Your task to perform on an android device: choose inbox layout in the gmail app Image 0: 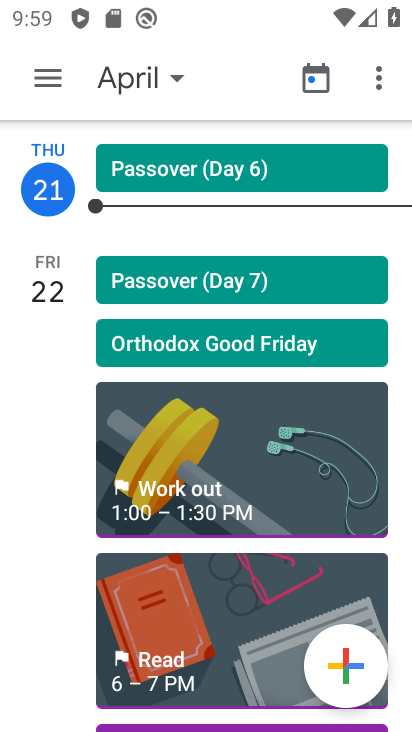
Step 0: drag from (264, 17) to (212, 568)
Your task to perform on an android device: choose inbox layout in the gmail app Image 1: 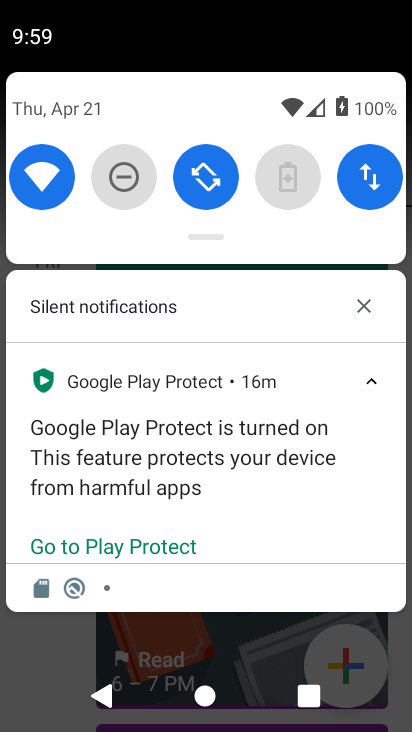
Step 1: press back button
Your task to perform on an android device: choose inbox layout in the gmail app Image 2: 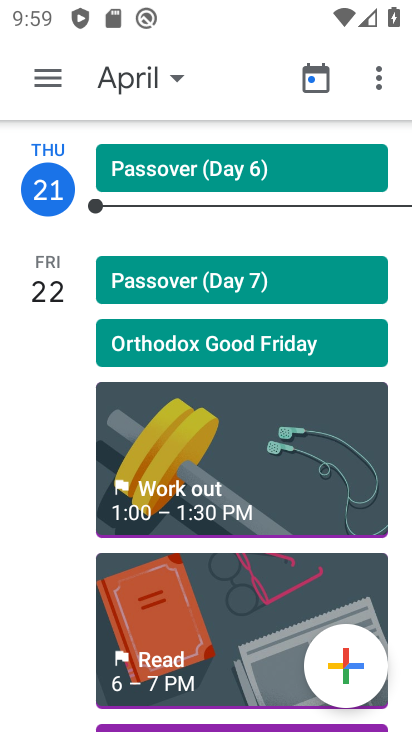
Step 2: press back button
Your task to perform on an android device: choose inbox layout in the gmail app Image 3: 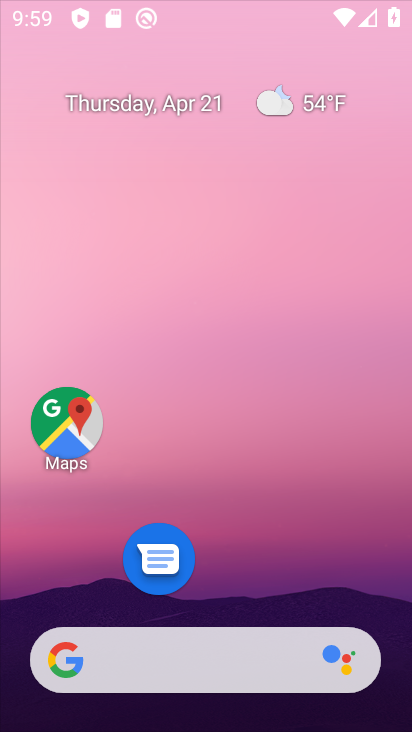
Step 3: press back button
Your task to perform on an android device: choose inbox layout in the gmail app Image 4: 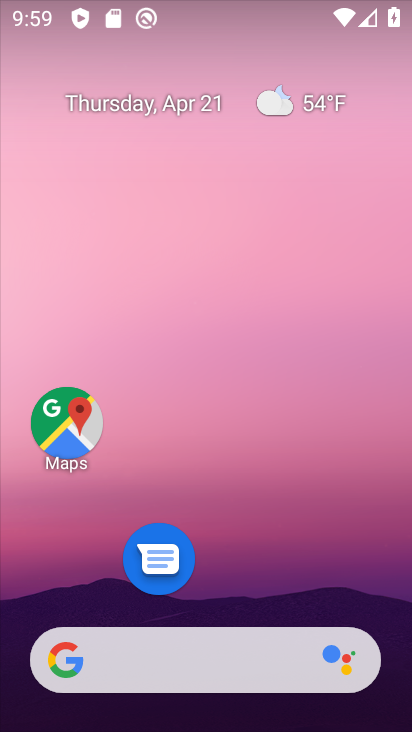
Step 4: drag from (230, 601) to (358, 59)
Your task to perform on an android device: choose inbox layout in the gmail app Image 5: 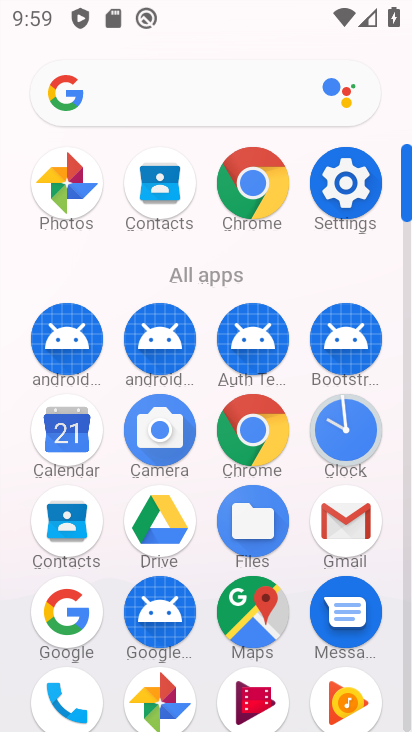
Step 5: click (352, 525)
Your task to perform on an android device: choose inbox layout in the gmail app Image 6: 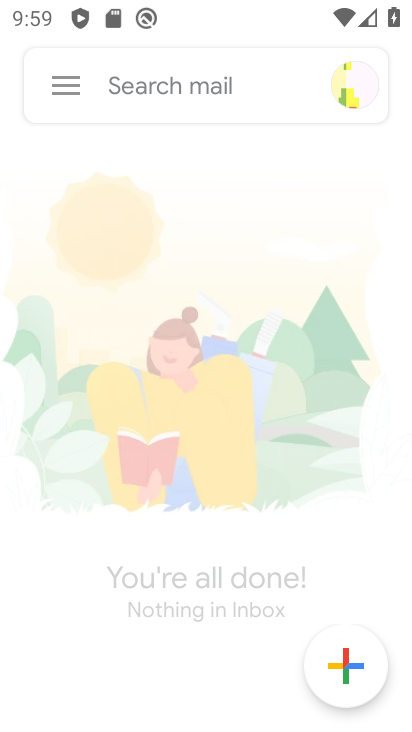
Step 6: click (74, 84)
Your task to perform on an android device: choose inbox layout in the gmail app Image 7: 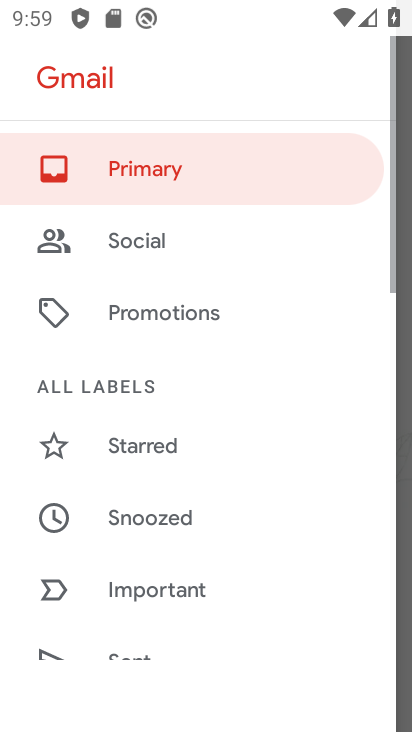
Step 7: drag from (164, 508) to (348, 1)
Your task to perform on an android device: choose inbox layout in the gmail app Image 8: 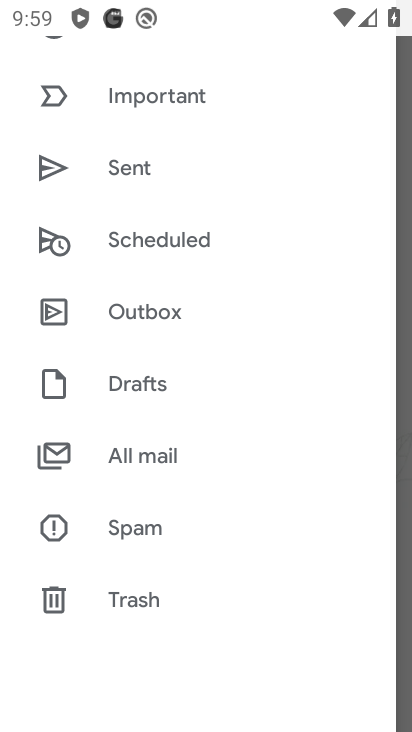
Step 8: drag from (202, 567) to (323, 84)
Your task to perform on an android device: choose inbox layout in the gmail app Image 9: 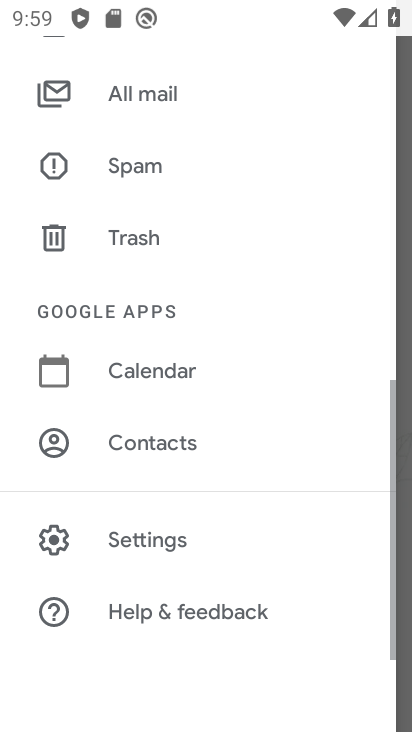
Step 9: click (166, 547)
Your task to perform on an android device: choose inbox layout in the gmail app Image 10: 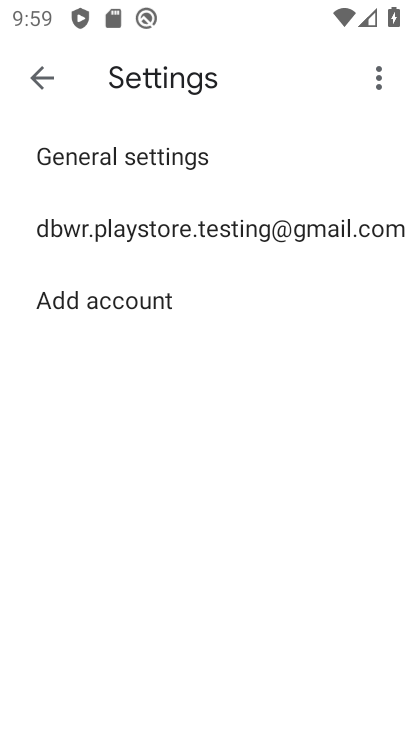
Step 10: click (150, 236)
Your task to perform on an android device: choose inbox layout in the gmail app Image 11: 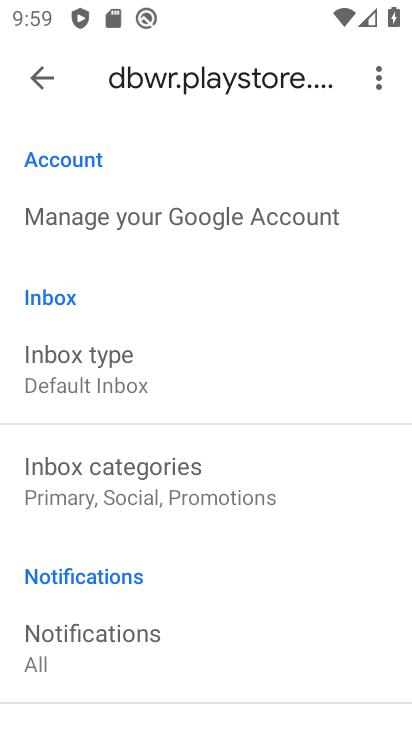
Step 11: click (101, 379)
Your task to perform on an android device: choose inbox layout in the gmail app Image 12: 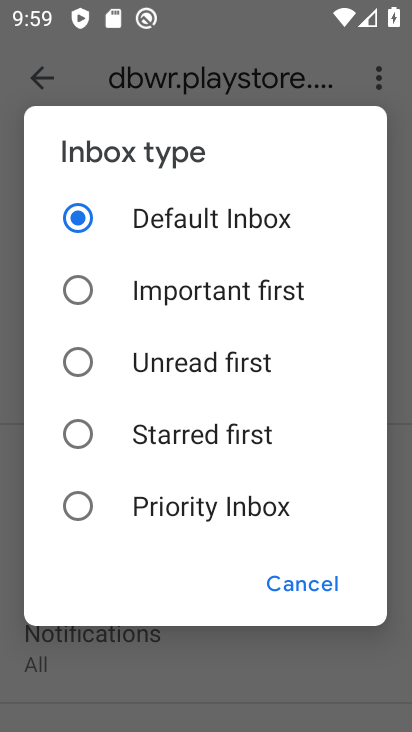
Step 12: click (278, 579)
Your task to perform on an android device: choose inbox layout in the gmail app Image 13: 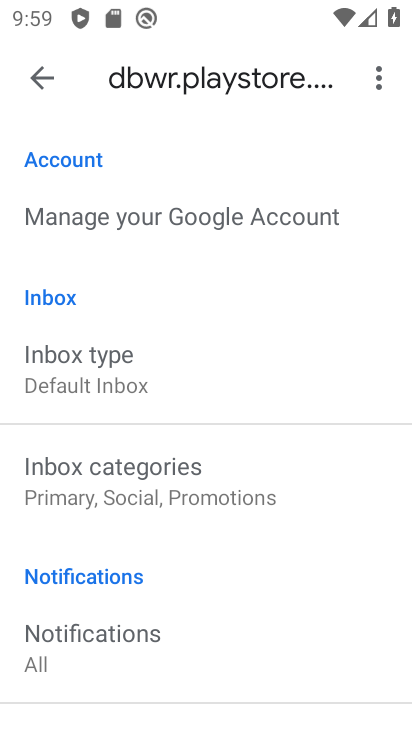
Step 13: click (119, 390)
Your task to perform on an android device: choose inbox layout in the gmail app Image 14: 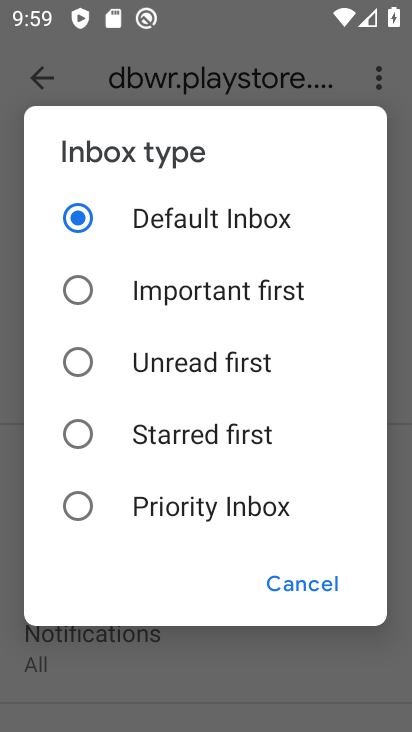
Step 14: click (72, 499)
Your task to perform on an android device: choose inbox layout in the gmail app Image 15: 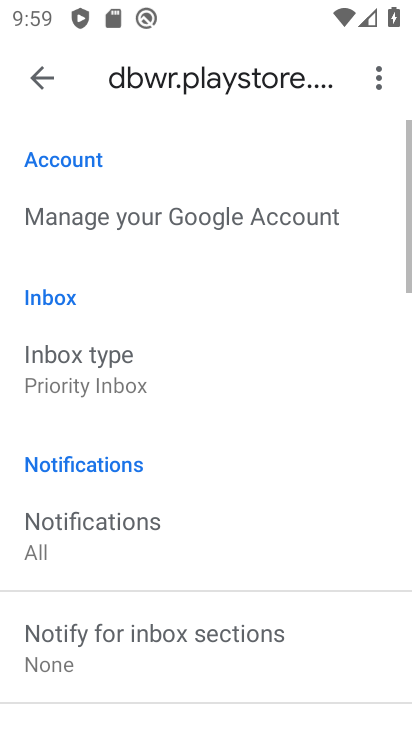
Step 15: task complete